Your task to perform on an android device: Open wifi settings Image 0: 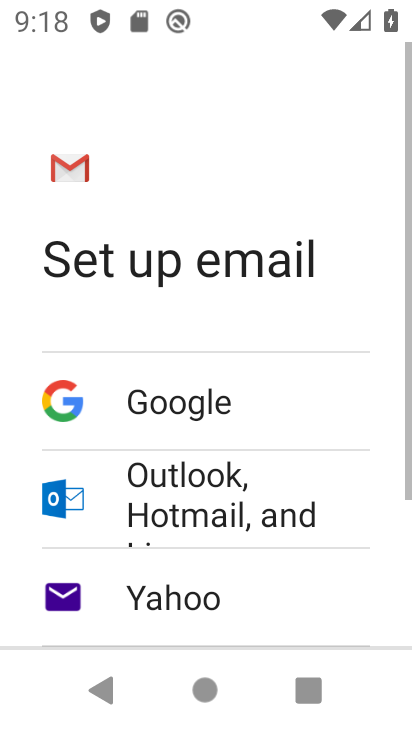
Step 0: press home button
Your task to perform on an android device: Open wifi settings Image 1: 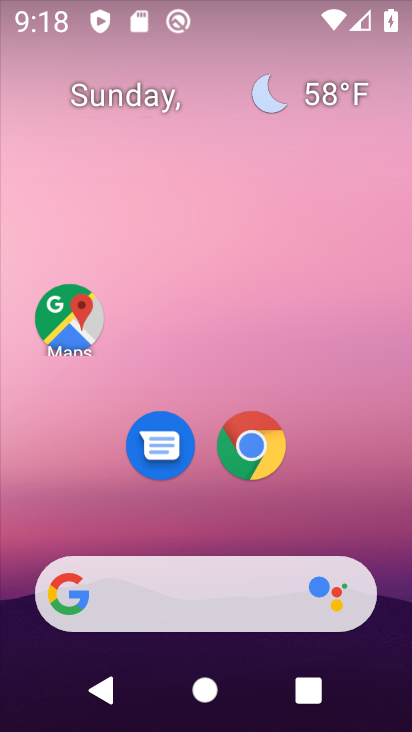
Step 1: drag from (193, 567) to (235, 24)
Your task to perform on an android device: Open wifi settings Image 2: 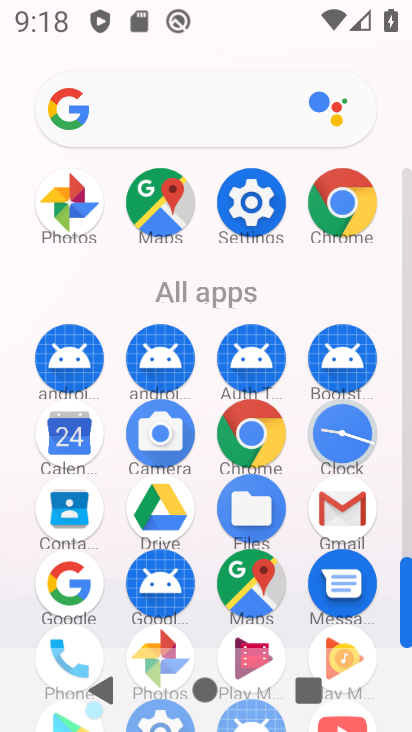
Step 2: click (272, 210)
Your task to perform on an android device: Open wifi settings Image 3: 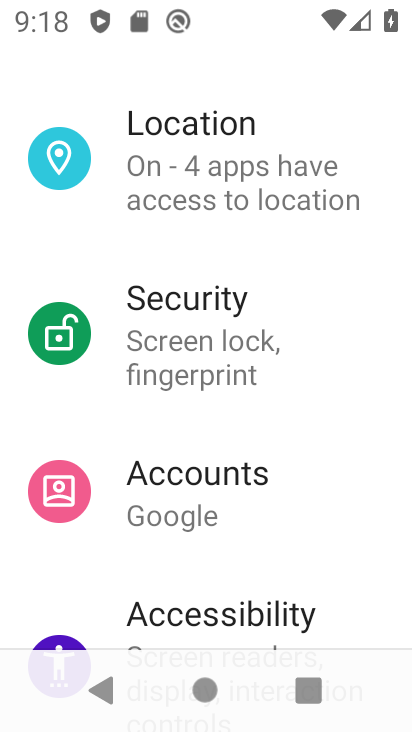
Step 3: drag from (173, 183) to (241, 731)
Your task to perform on an android device: Open wifi settings Image 4: 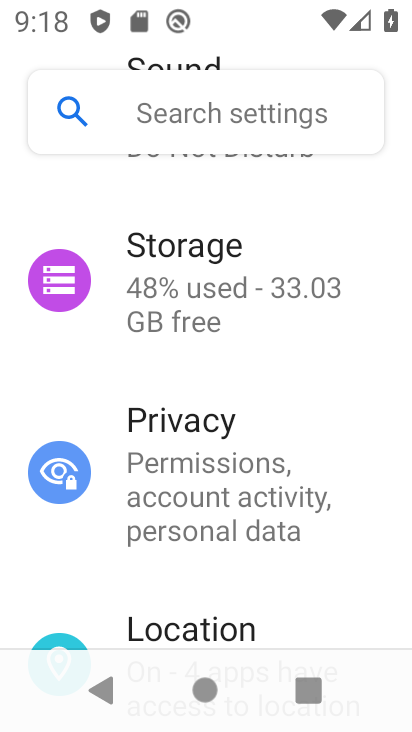
Step 4: drag from (221, 150) to (231, 560)
Your task to perform on an android device: Open wifi settings Image 5: 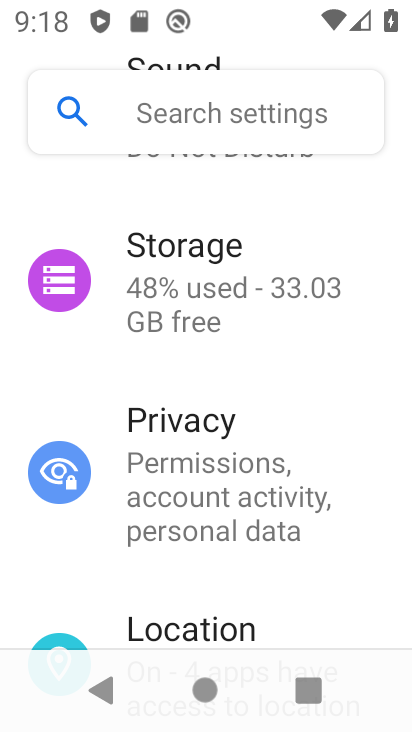
Step 5: drag from (223, 201) to (278, 615)
Your task to perform on an android device: Open wifi settings Image 6: 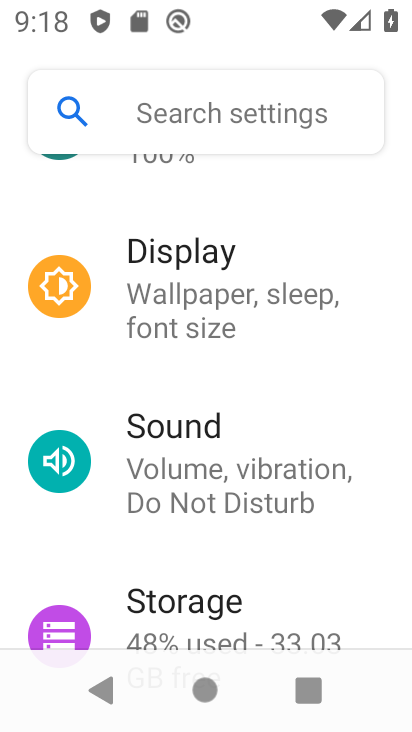
Step 6: drag from (238, 211) to (47, 711)
Your task to perform on an android device: Open wifi settings Image 7: 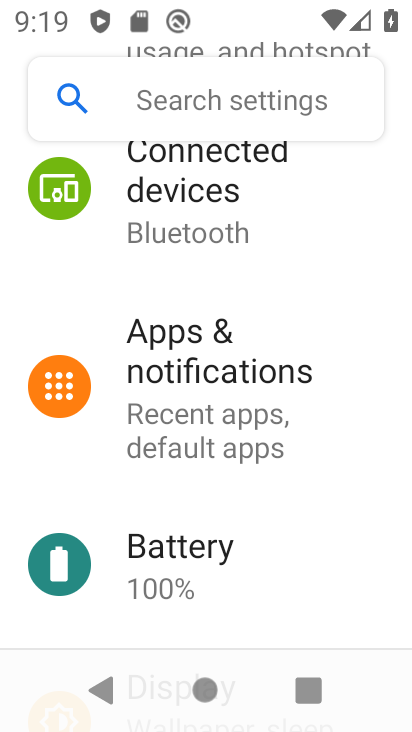
Step 7: drag from (265, 267) to (30, 709)
Your task to perform on an android device: Open wifi settings Image 8: 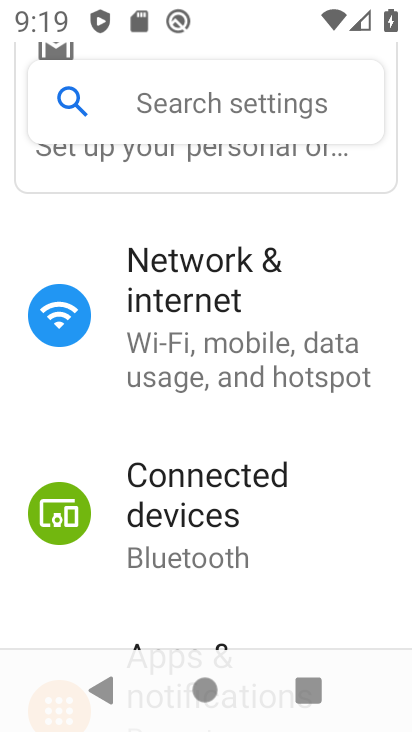
Step 8: click (196, 300)
Your task to perform on an android device: Open wifi settings Image 9: 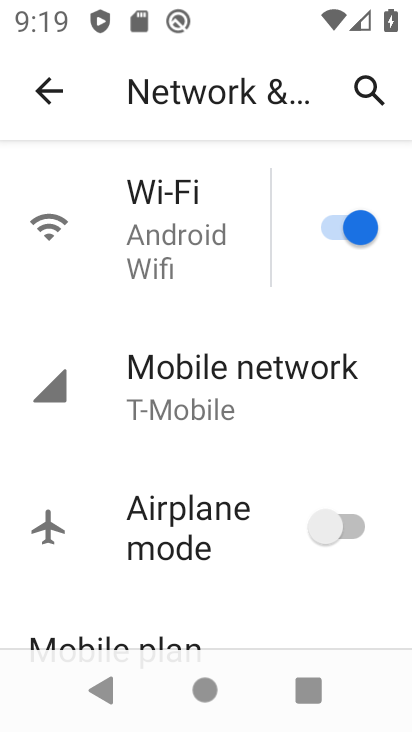
Step 9: click (203, 251)
Your task to perform on an android device: Open wifi settings Image 10: 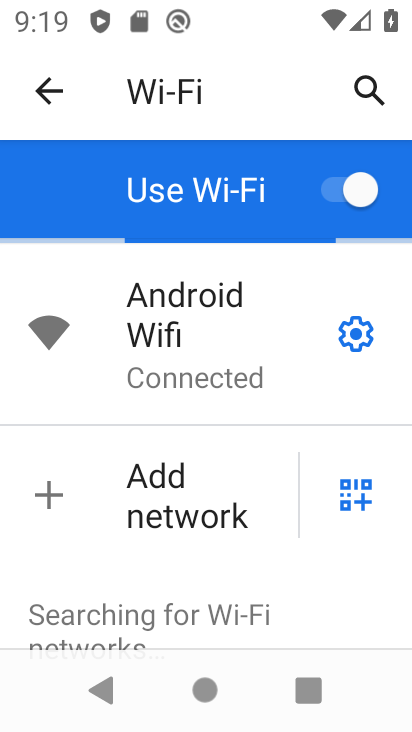
Step 10: task complete